Your task to perform on an android device: all mails in gmail Image 0: 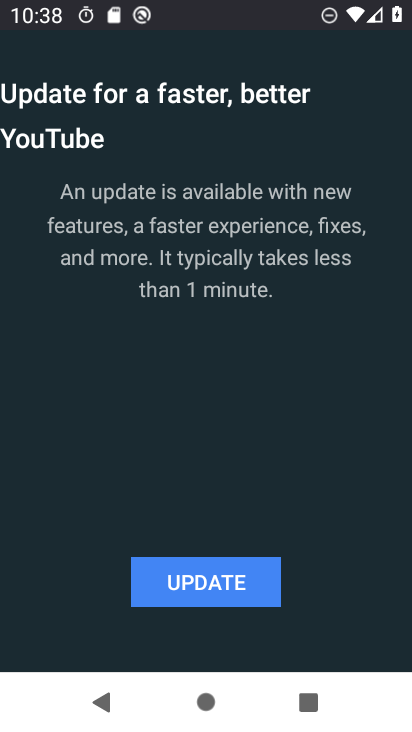
Step 0: press home button
Your task to perform on an android device: all mails in gmail Image 1: 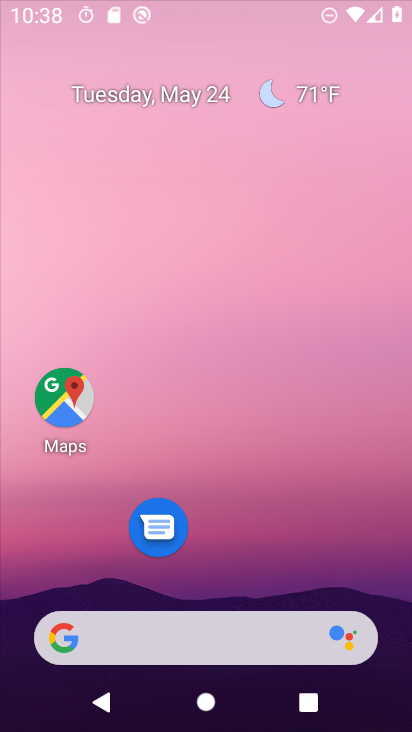
Step 1: drag from (220, 519) to (195, 73)
Your task to perform on an android device: all mails in gmail Image 2: 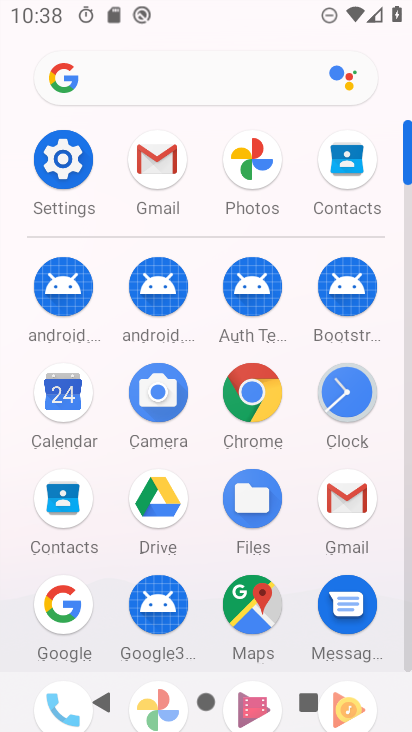
Step 2: click (161, 157)
Your task to perform on an android device: all mails in gmail Image 3: 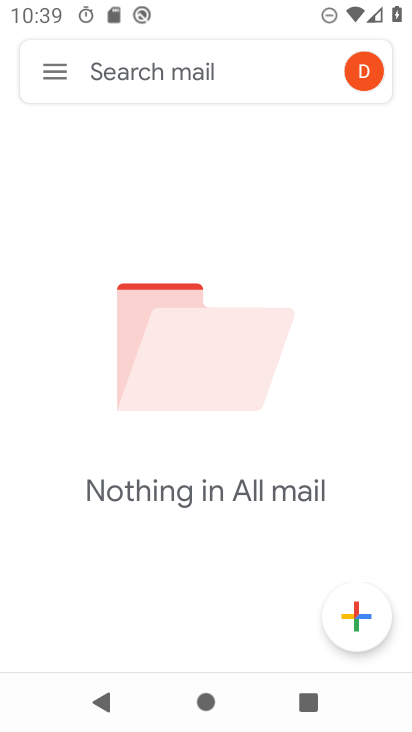
Step 3: task complete